Your task to perform on an android device: Search for bose quietcomfort 35 on amazon.com, select the first entry, and add it to the cart. Image 0: 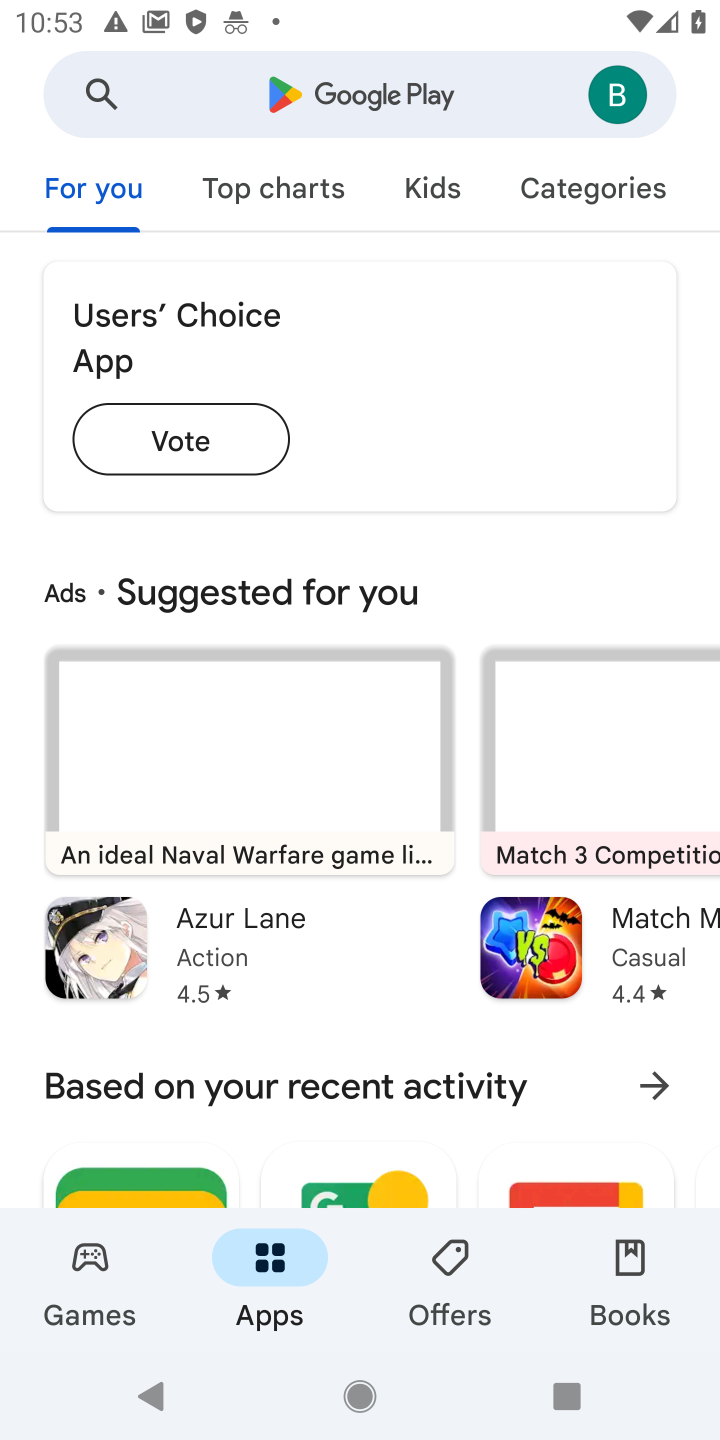
Step 0: press home button
Your task to perform on an android device: Search for bose quietcomfort 35 on amazon.com, select the first entry, and add it to the cart. Image 1: 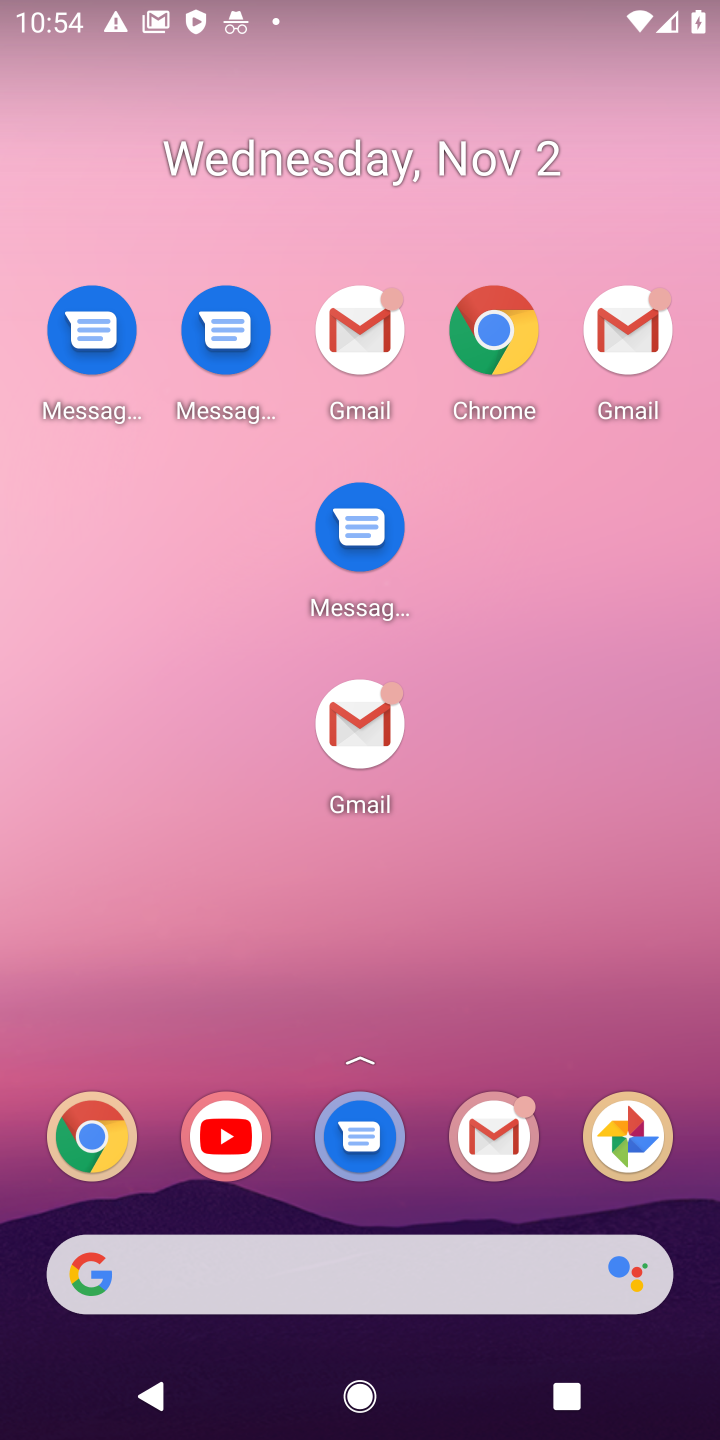
Step 1: drag from (393, 940) to (412, 288)
Your task to perform on an android device: Search for bose quietcomfort 35 on amazon.com, select the first entry, and add it to the cart. Image 2: 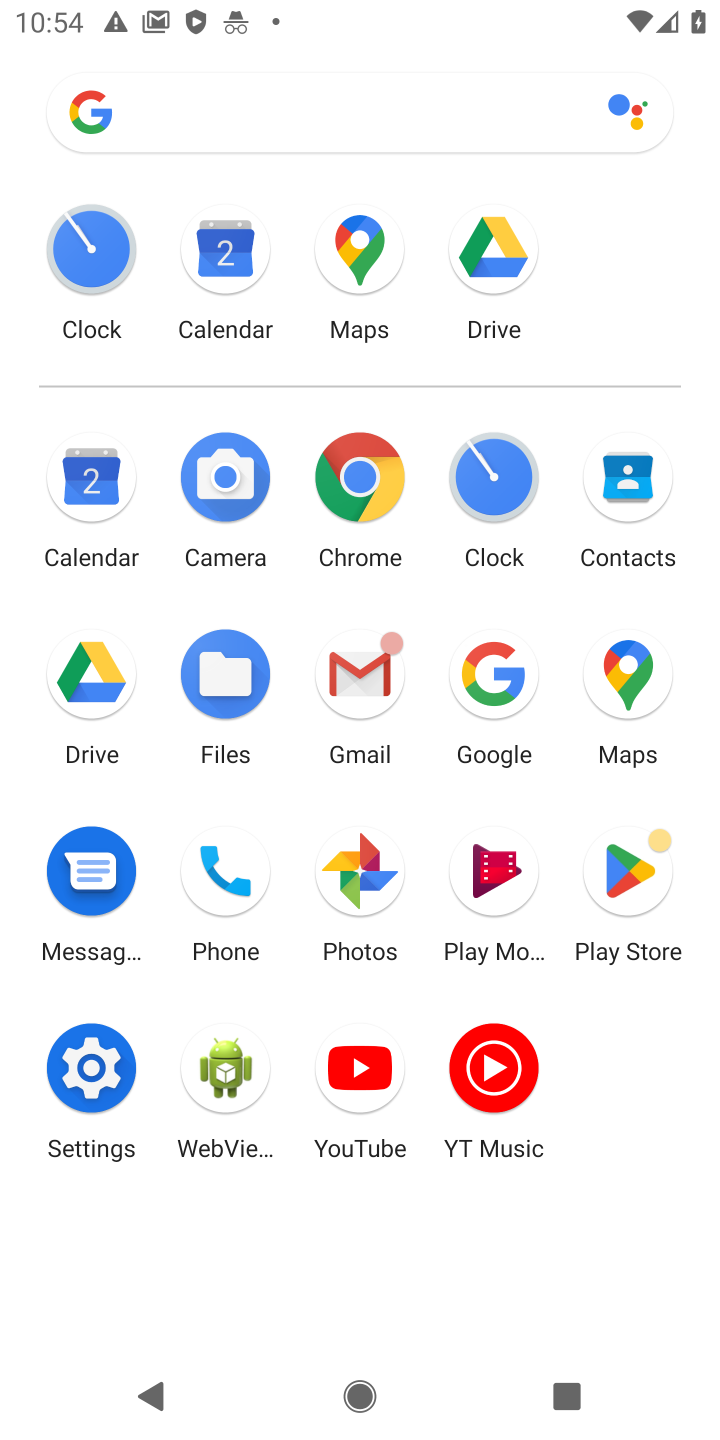
Step 2: click (506, 663)
Your task to perform on an android device: Search for bose quietcomfort 35 on amazon.com, select the first entry, and add it to the cart. Image 3: 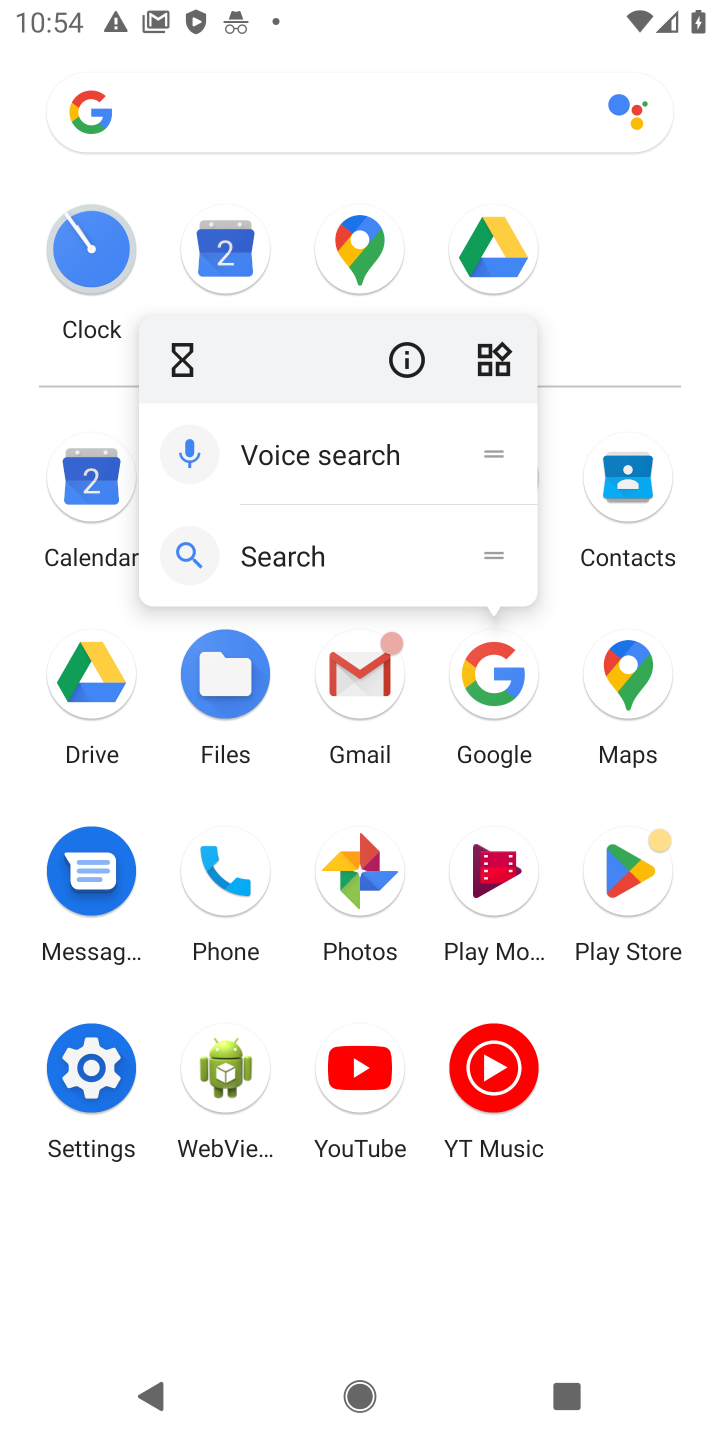
Step 3: click (506, 663)
Your task to perform on an android device: Search for bose quietcomfort 35 on amazon.com, select the first entry, and add it to the cart. Image 4: 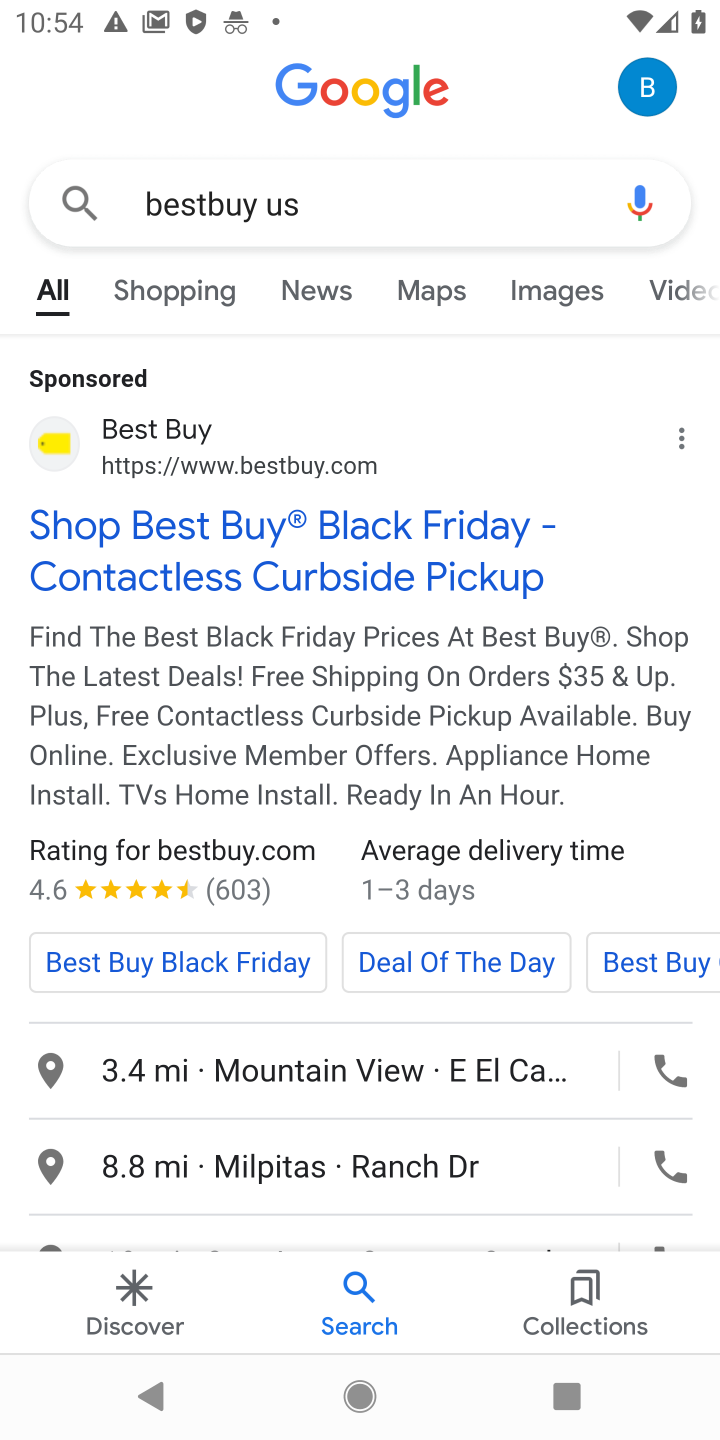
Step 4: click (366, 186)
Your task to perform on an android device: Search for bose quietcomfort 35 on amazon.com, select the first entry, and add it to the cart. Image 5: 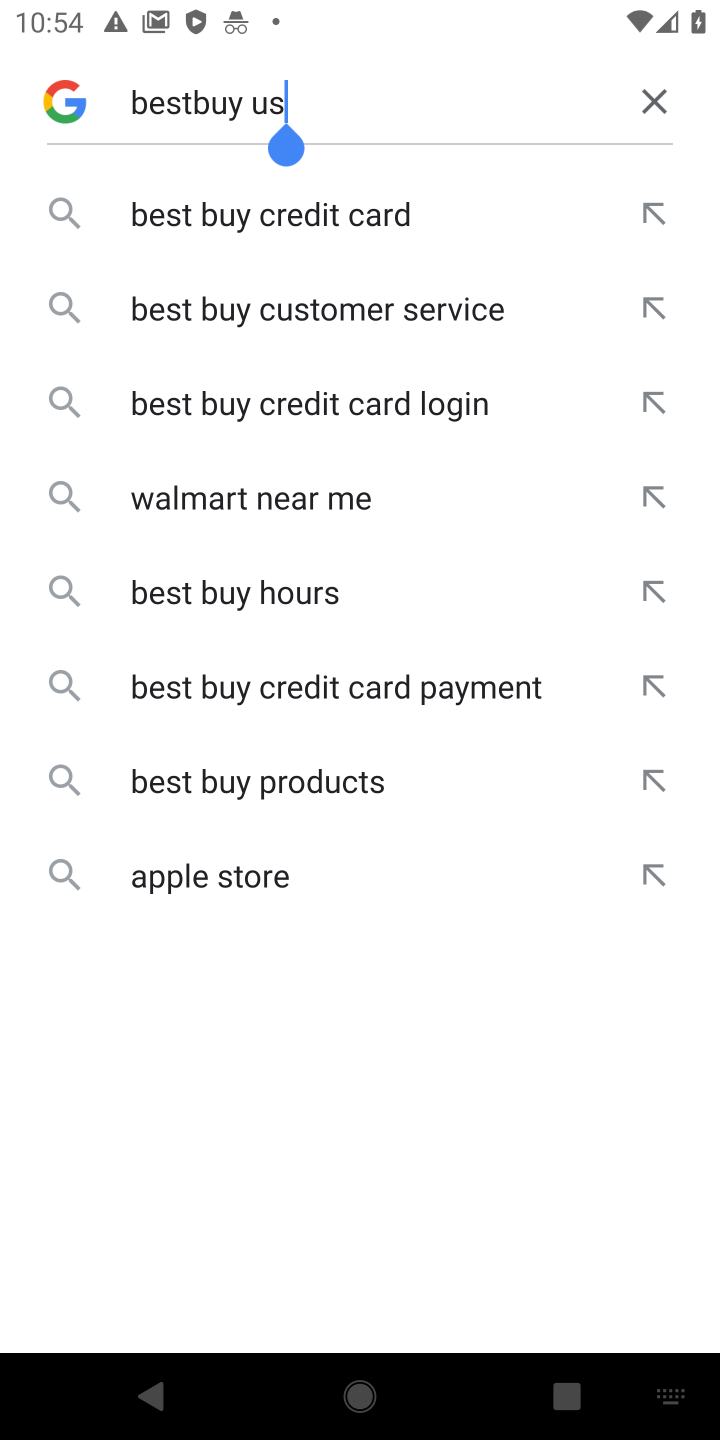
Step 5: click (662, 91)
Your task to perform on an android device: Search for bose quietcomfort 35 on amazon.com, select the first entry, and add it to the cart. Image 6: 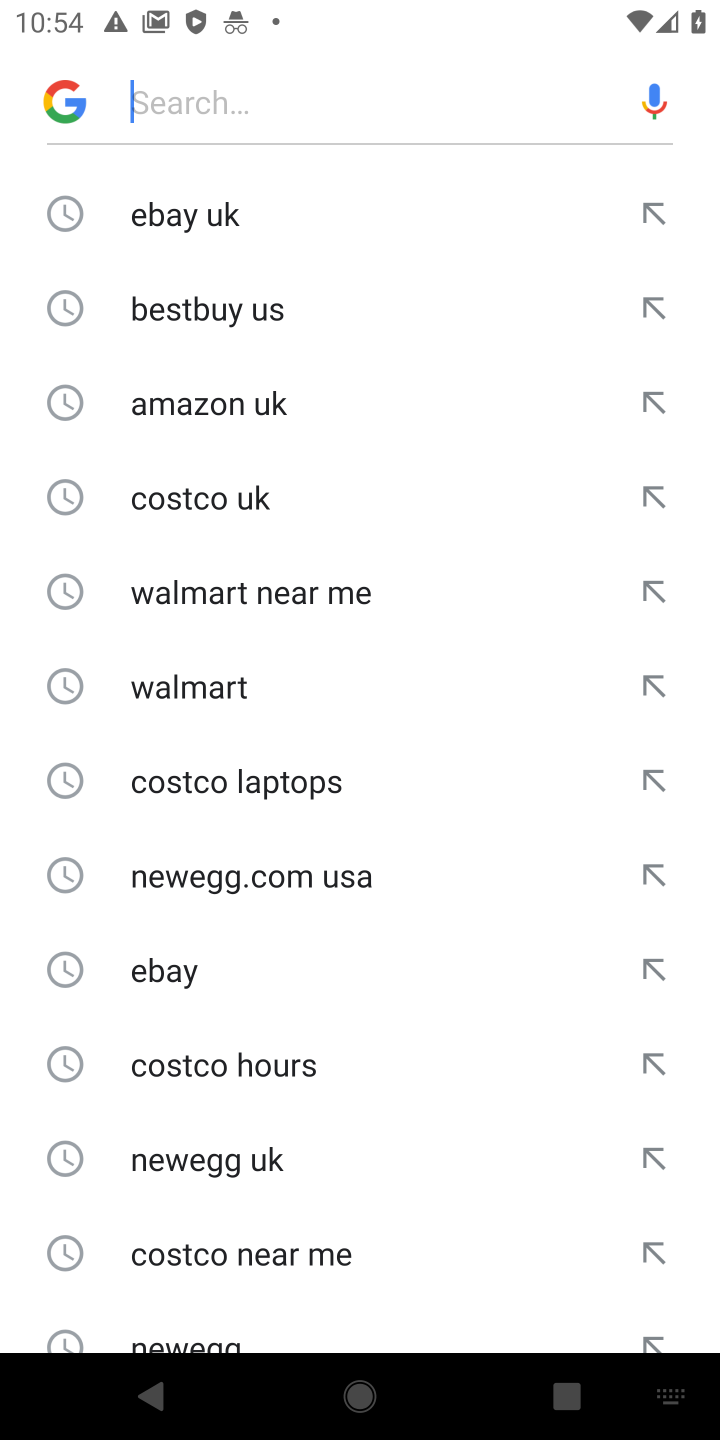
Step 6: click (266, 69)
Your task to perform on an android device: Search for bose quietcomfort 35 on amazon.com, select the first entry, and add it to the cart. Image 7: 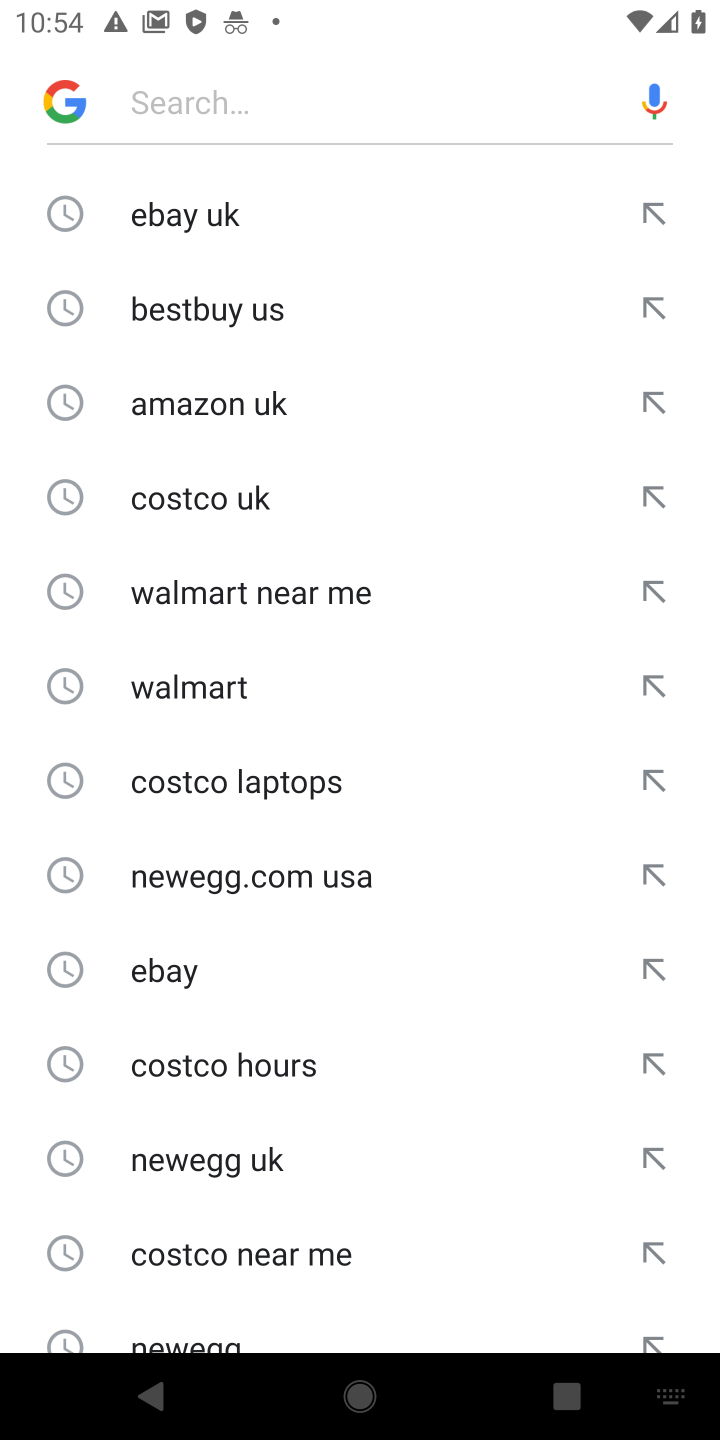
Step 7: type "amazon "
Your task to perform on an android device: Search for bose quietcomfort 35 on amazon.com, select the first entry, and add it to the cart. Image 8: 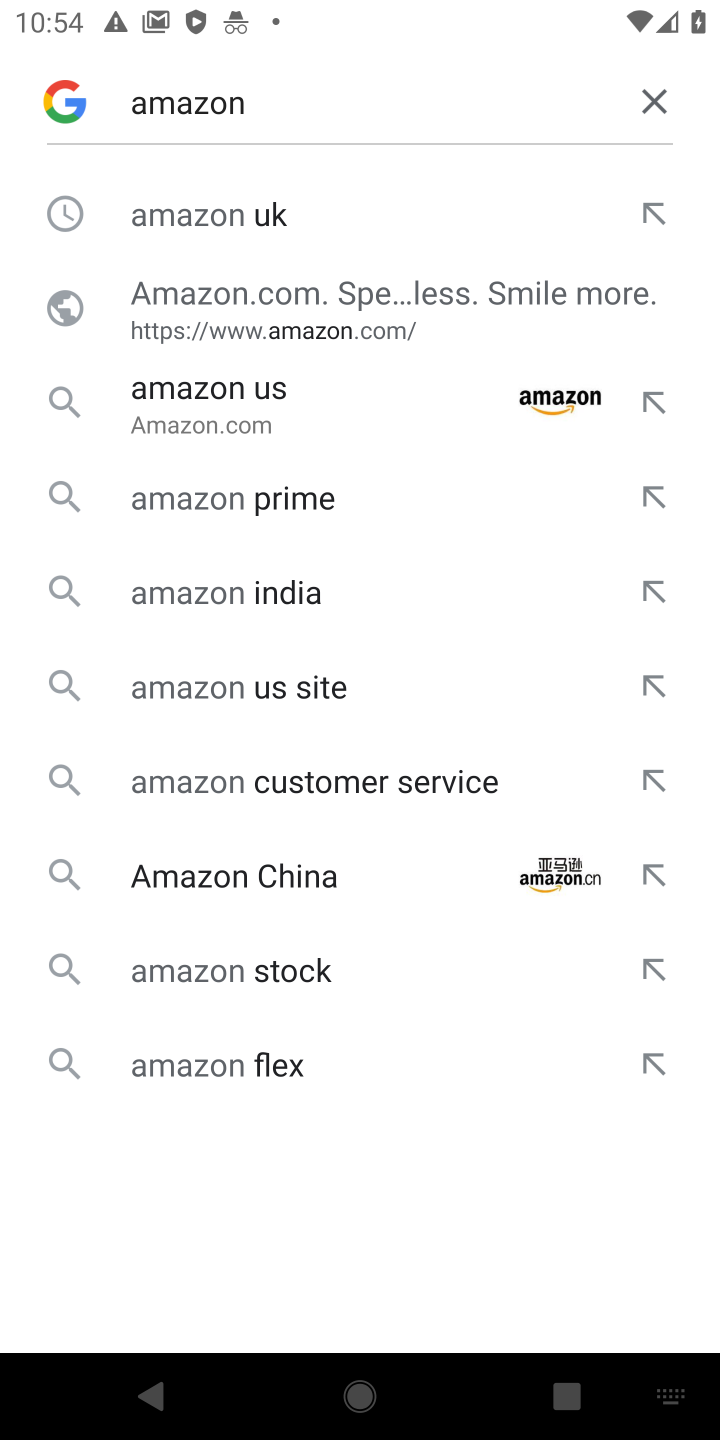
Step 8: click (156, 213)
Your task to perform on an android device: Search for bose quietcomfort 35 on amazon.com, select the first entry, and add it to the cart. Image 9: 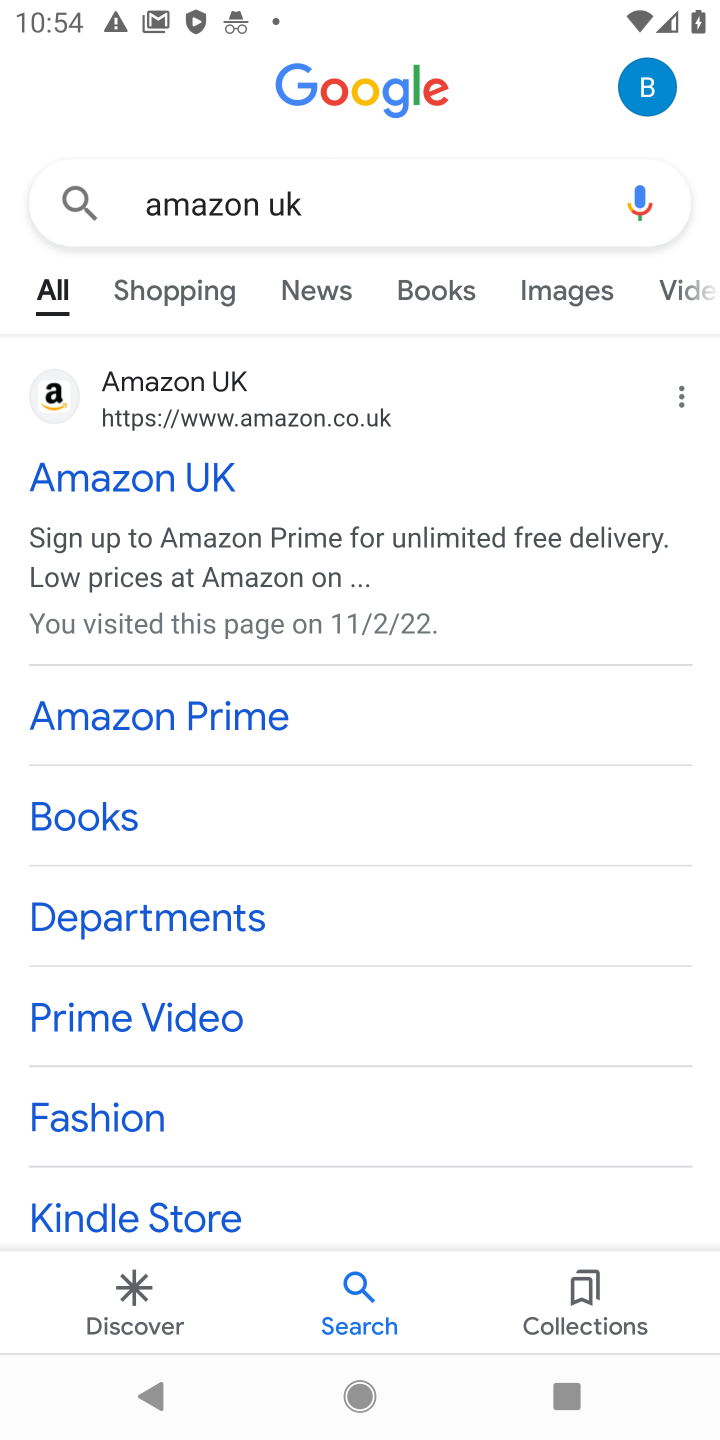
Step 9: click (57, 409)
Your task to perform on an android device: Search for bose quietcomfort 35 on amazon.com, select the first entry, and add it to the cart. Image 10: 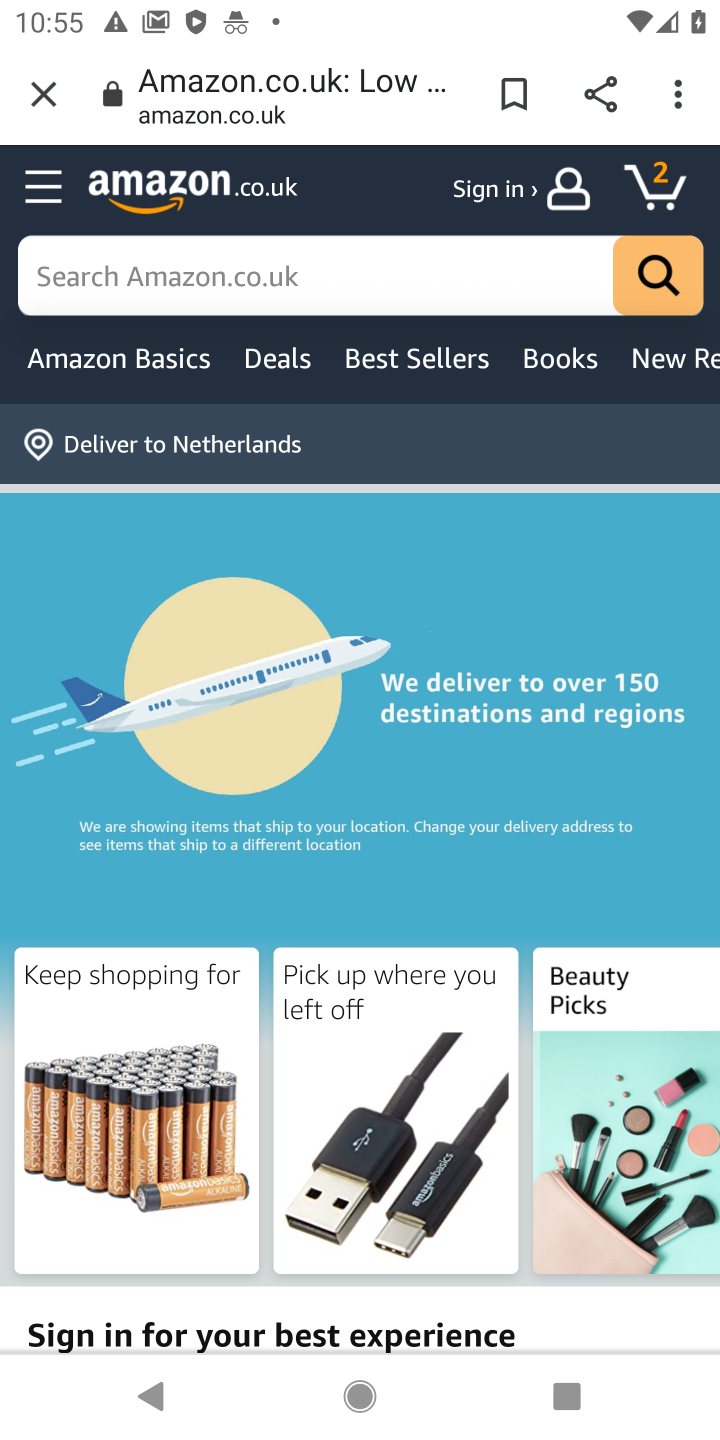
Step 10: click (322, 267)
Your task to perform on an android device: Search for bose quietcomfort 35 on amazon.com, select the first entry, and add it to the cart. Image 11: 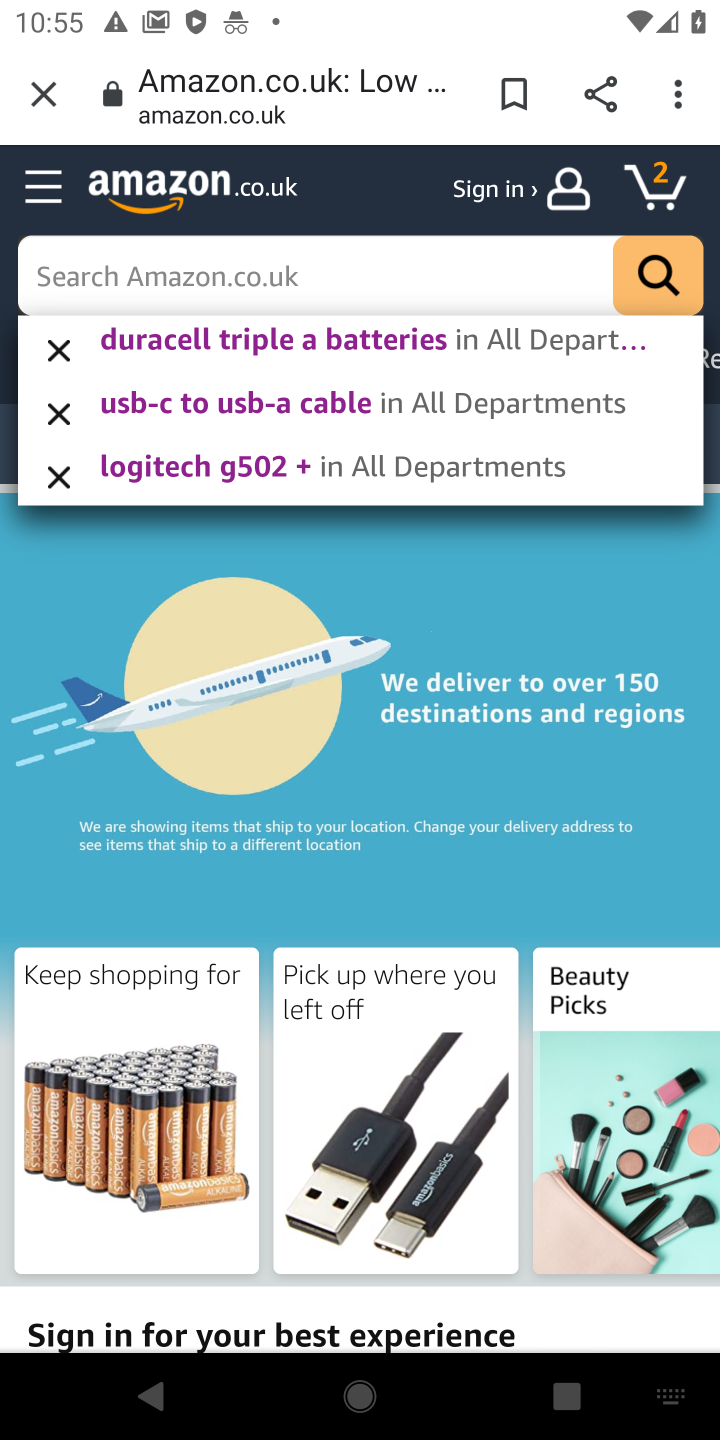
Step 11: type "bose quietcomfort 35  "
Your task to perform on an android device: Search for bose quietcomfort 35 on amazon.com, select the first entry, and add it to the cart. Image 12: 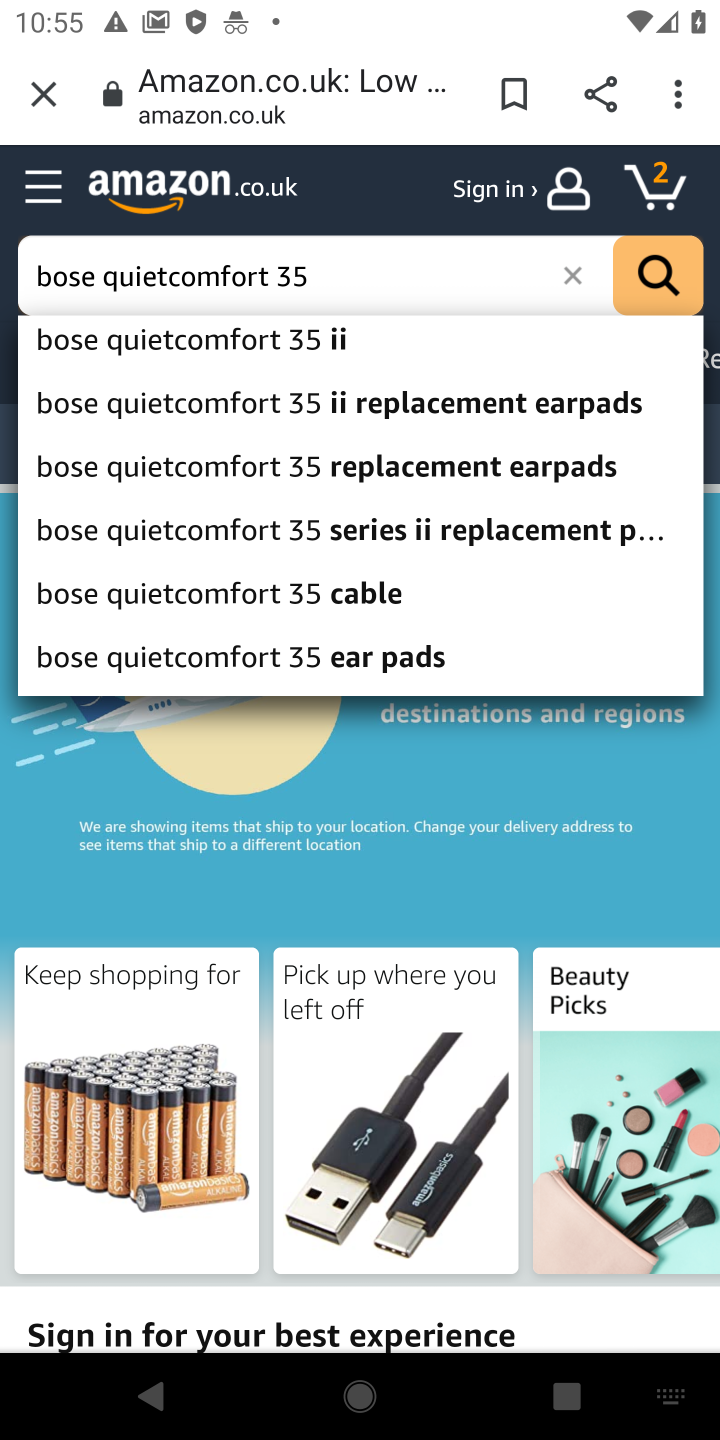
Step 12: click (188, 344)
Your task to perform on an android device: Search for bose quietcomfort 35 on amazon.com, select the first entry, and add it to the cart. Image 13: 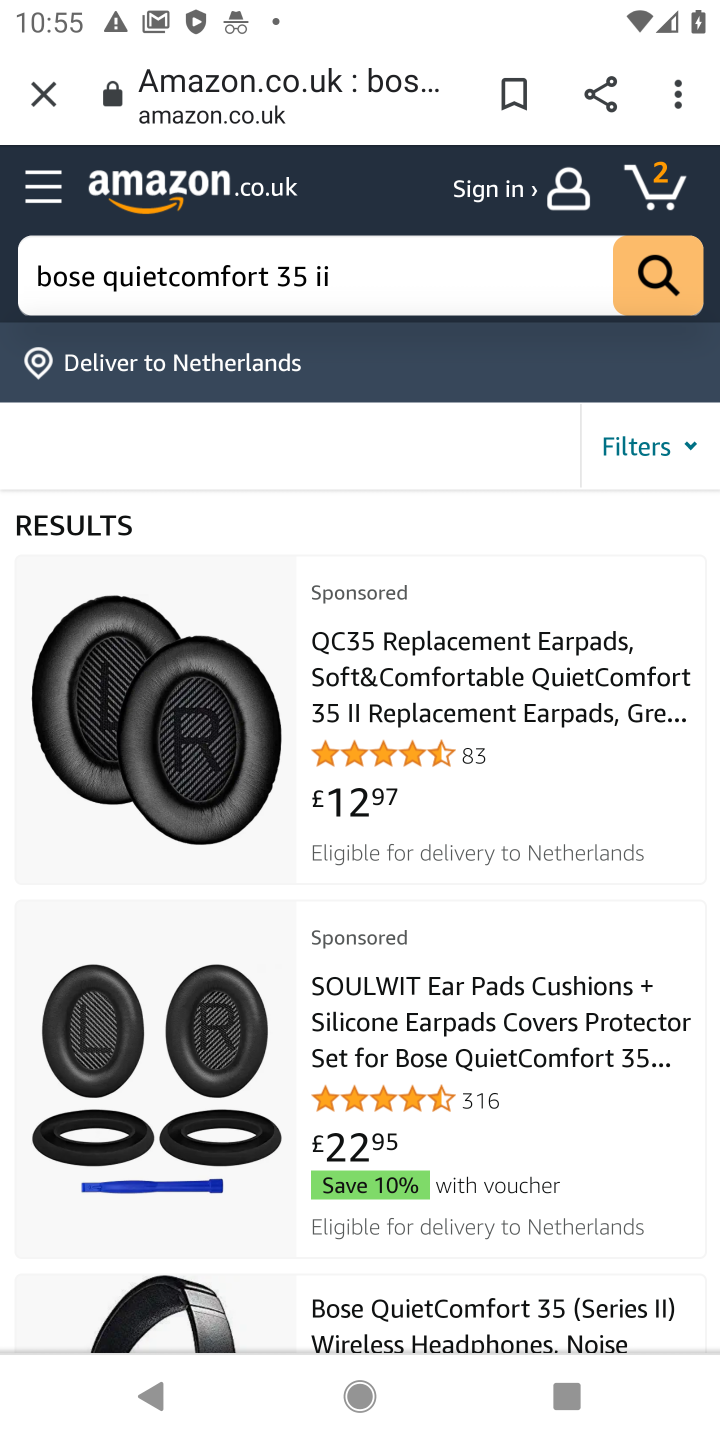
Step 13: click (405, 699)
Your task to perform on an android device: Search for bose quietcomfort 35 on amazon.com, select the first entry, and add it to the cart. Image 14: 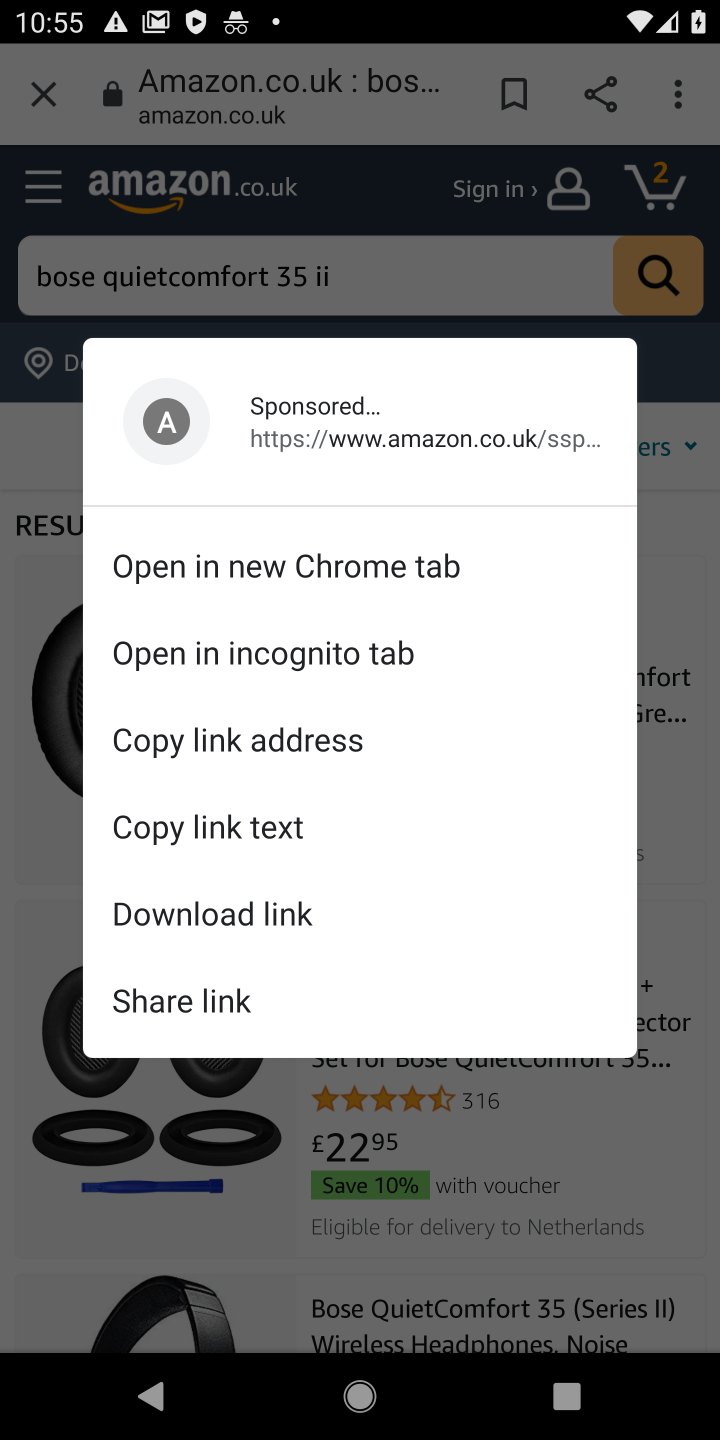
Step 14: click (49, 542)
Your task to perform on an android device: Search for bose quietcomfort 35 on amazon.com, select the first entry, and add it to the cart. Image 15: 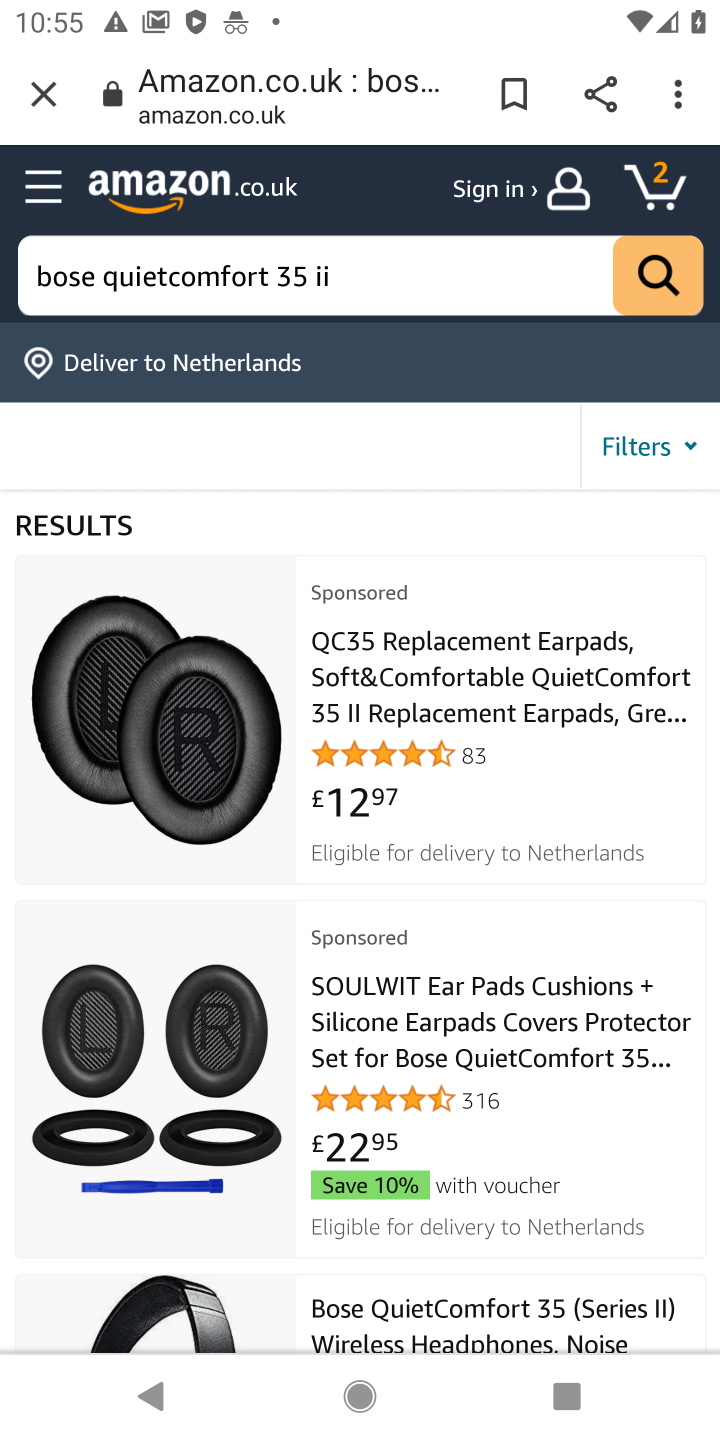
Step 15: click (542, 659)
Your task to perform on an android device: Search for bose quietcomfort 35 on amazon.com, select the first entry, and add it to the cart. Image 16: 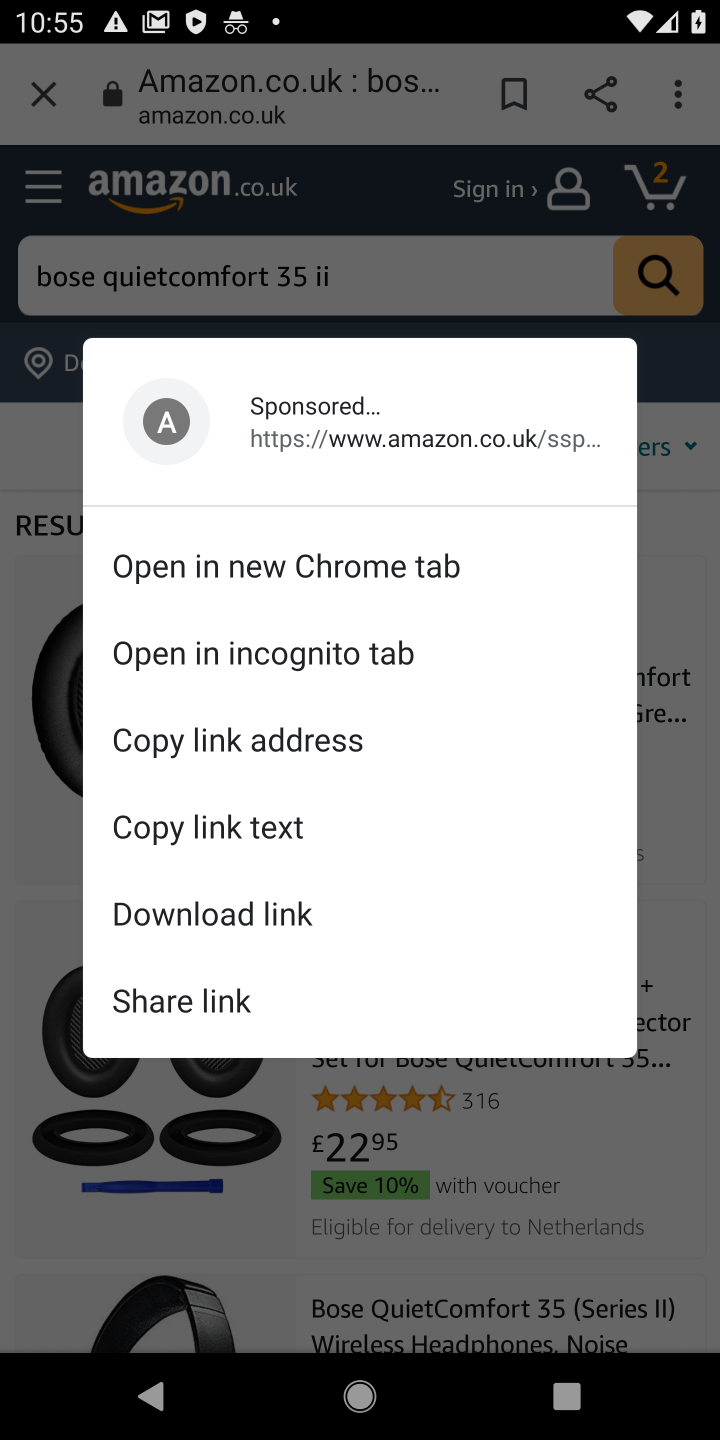
Step 16: click (640, 708)
Your task to perform on an android device: Search for bose quietcomfort 35 on amazon.com, select the first entry, and add it to the cart. Image 17: 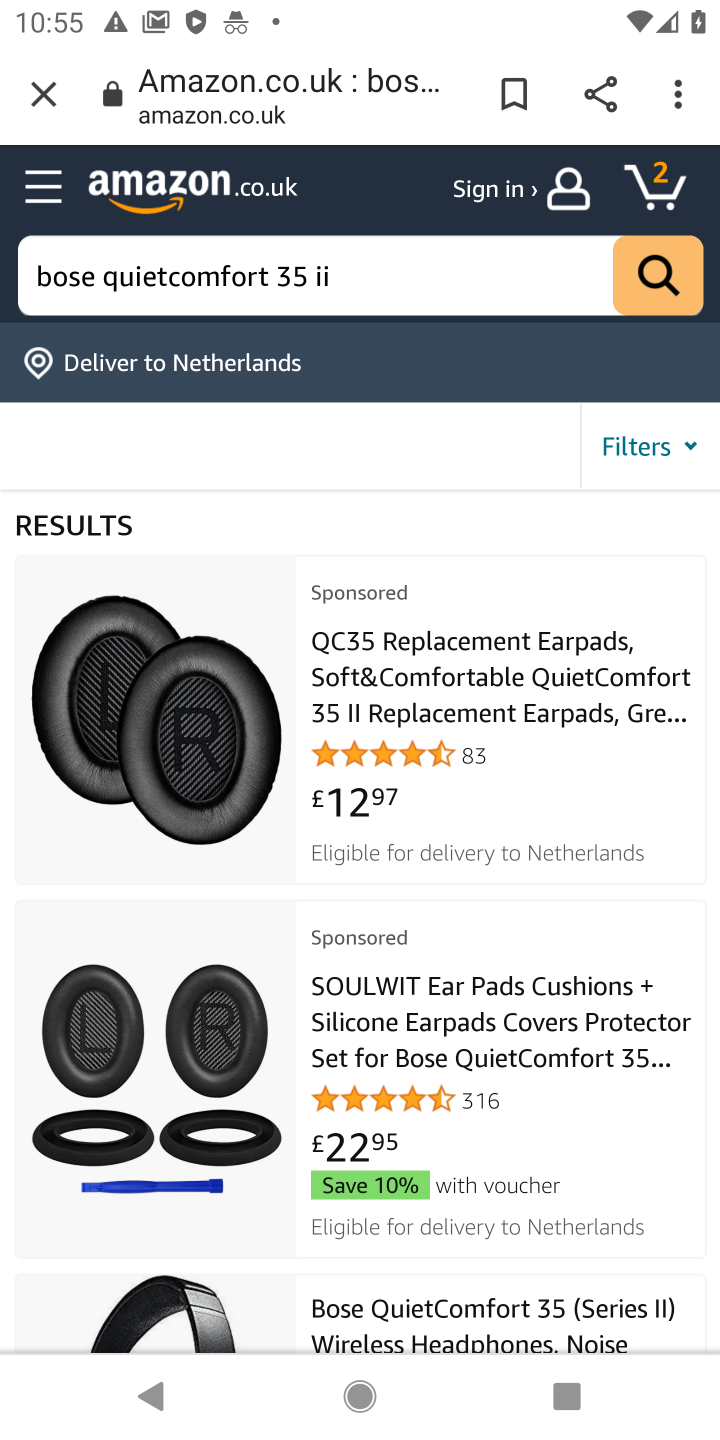
Step 17: click (524, 974)
Your task to perform on an android device: Search for bose quietcomfort 35 on amazon.com, select the first entry, and add it to the cart. Image 18: 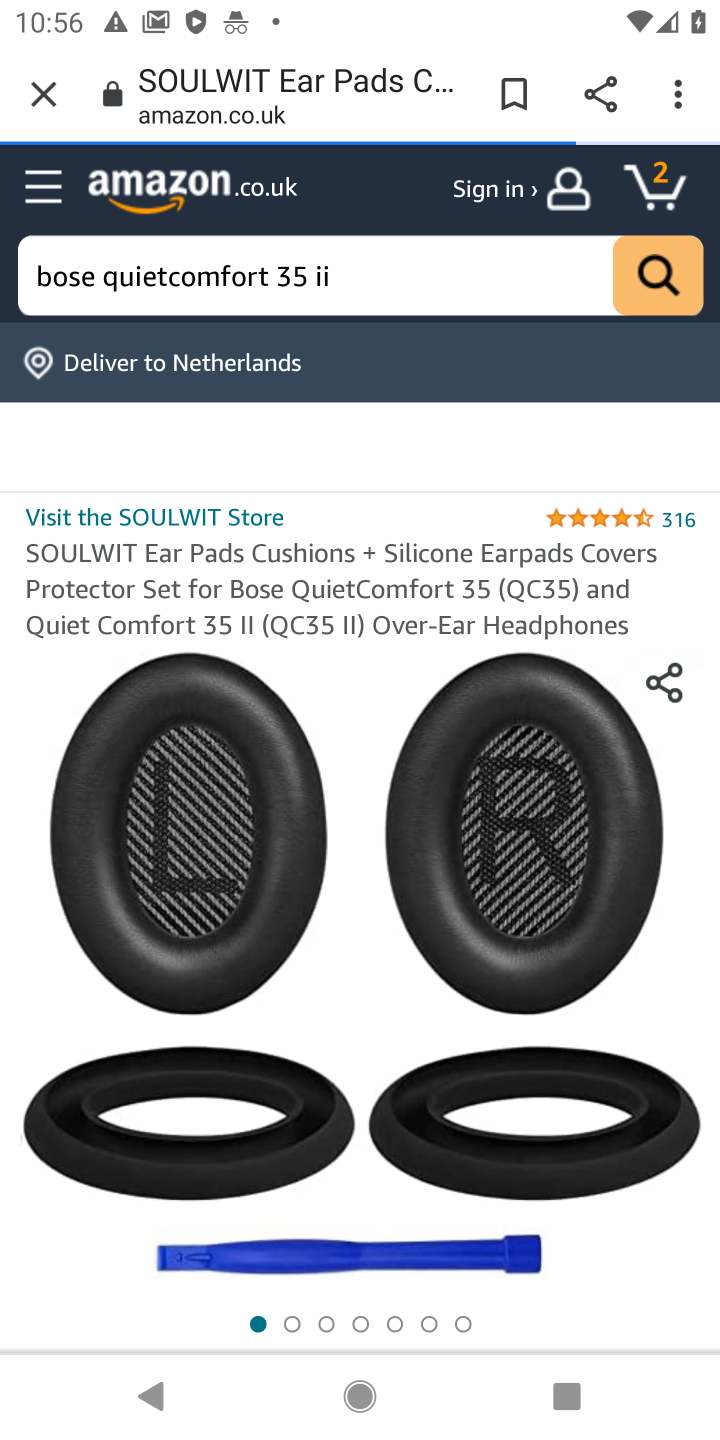
Step 18: drag from (496, 1168) to (558, 522)
Your task to perform on an android device: Search for bose quietcomfort 35 on amazon.com, select the first entry, and add it to the cart. Image 19: 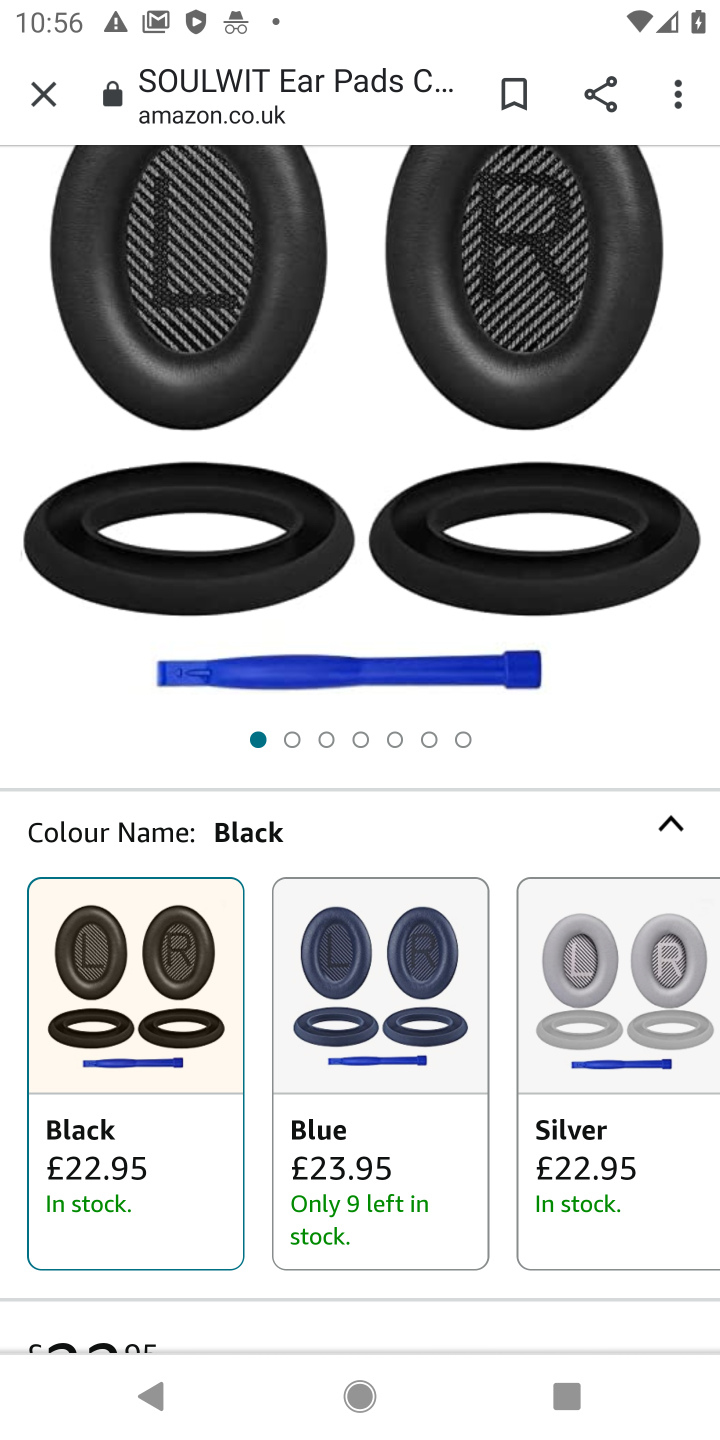
Step 19: drag from (447, 1164) to (460, 105)
Your task to perform on an android device: Search for bose quietcomfort 35 on amazon.com, select the first entry, and add it to the cart. Image 20: 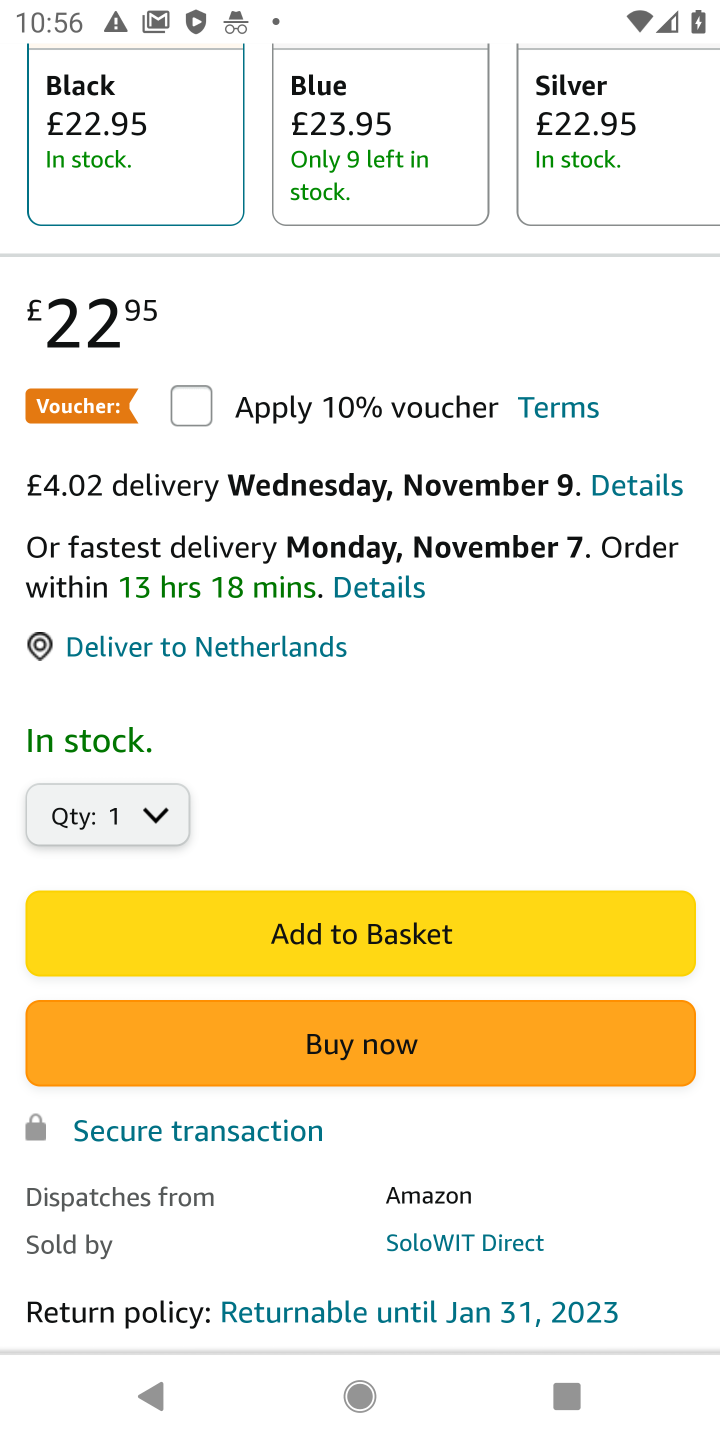
Step 20: click (334, 930)
Your task to perform on an android device: Search for bose quietcomfort 35 on amazon.com, select the first entry, and add it to the cart. Image 21: 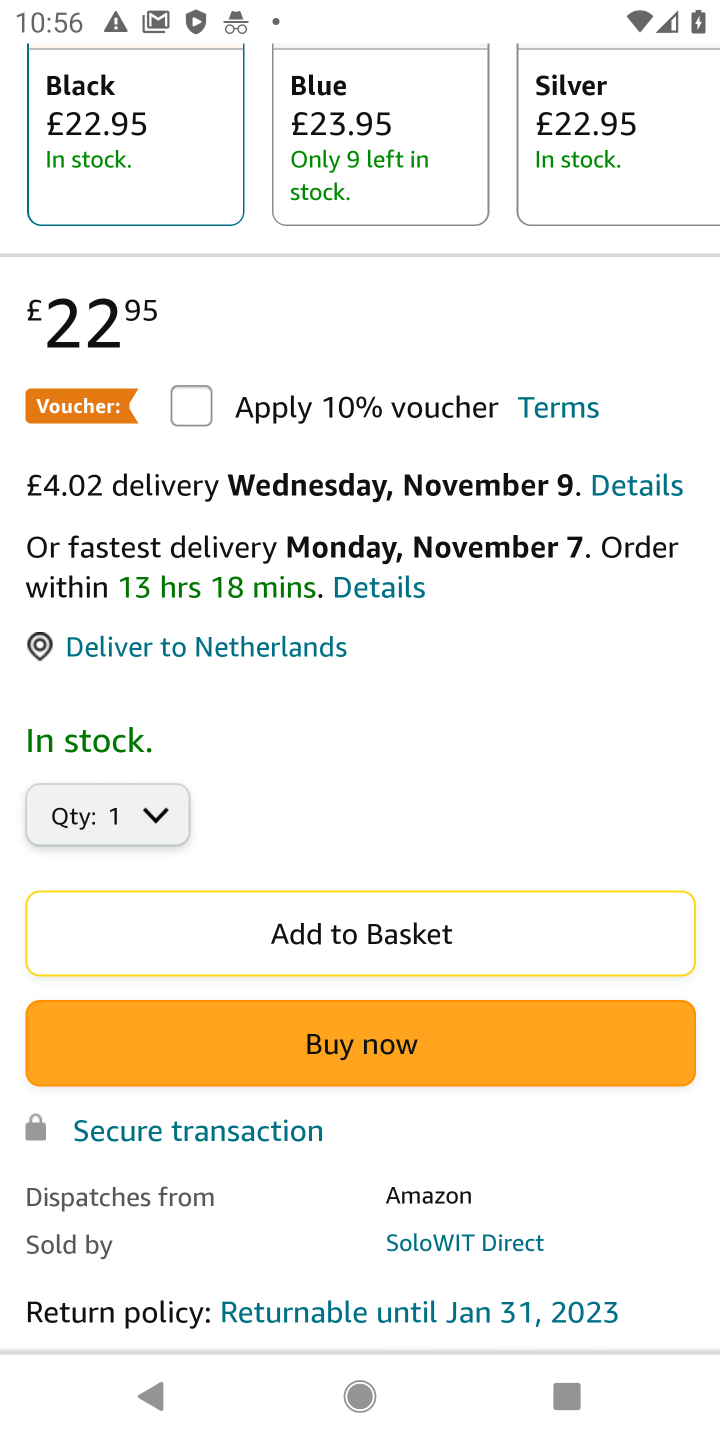
Step 21: task complete